Your task to perform on an android device: change text size in settings app Image 0: 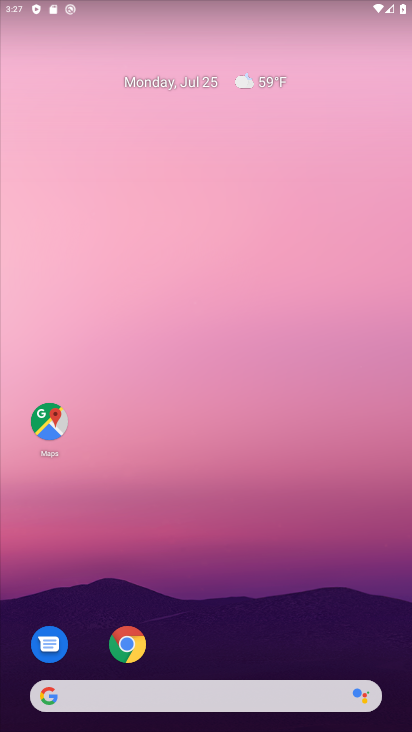
Step 0: drag from (188, 677) to (272, 98)
Your task to perform on an android device: change text size in settings app Image 1: 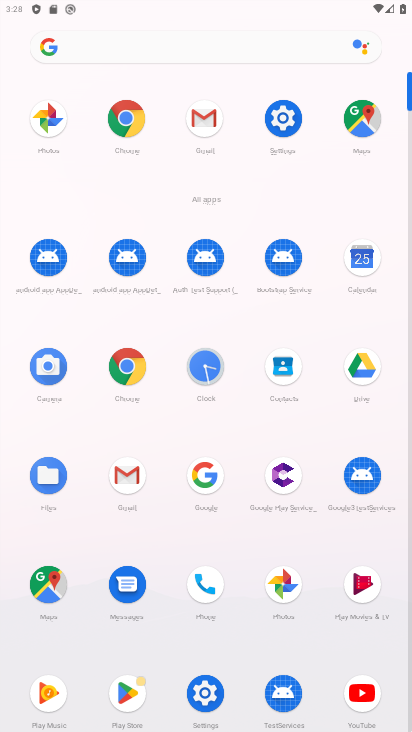
Step 1: click (207, 686)
Your task to perform on an android device: change text size in settings app Image 2: 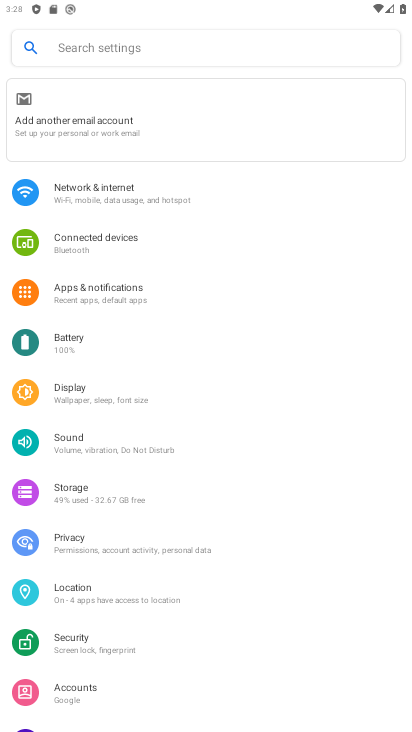
Step 2: drag from (83, 692) to (131, 282)
Your task to perform on an android device: change text size in settings app Image 3: 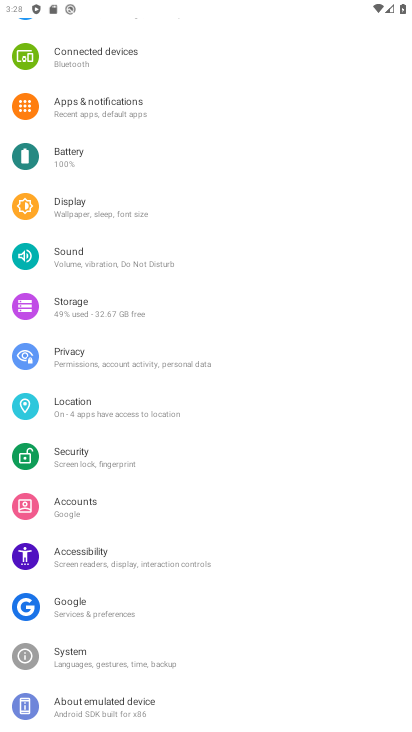
Step 3: click (107, 562)
Your task to perform on an android device: change text size in settings app Image 4: 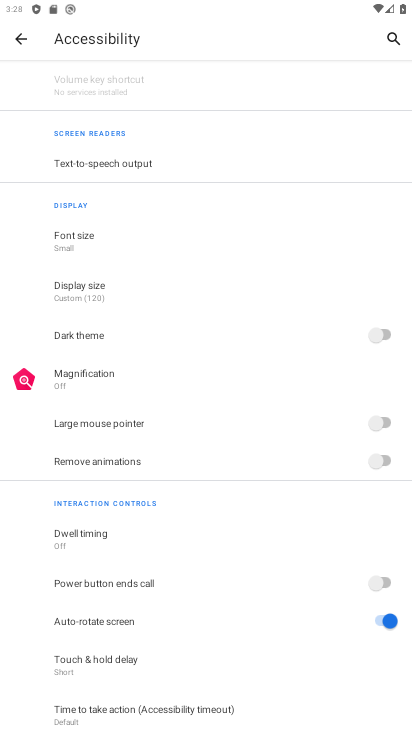
Step 4: click (87, 228)
Your task to perform on an android device: change text size in settings app Image 5: 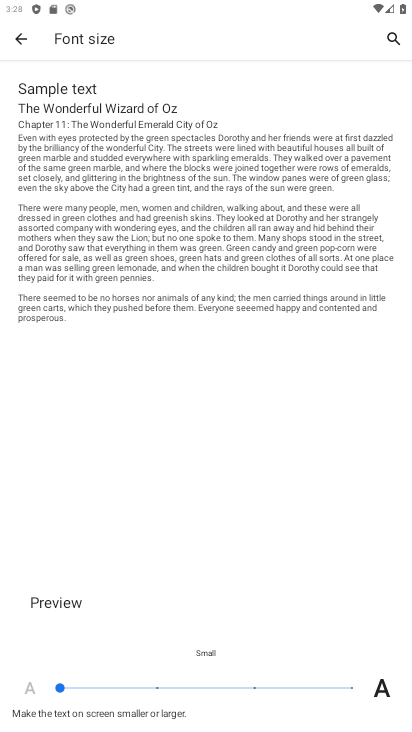
Step 5: click (153, 690)
Your task to perform on an android device: change text size in settings app Image 6: 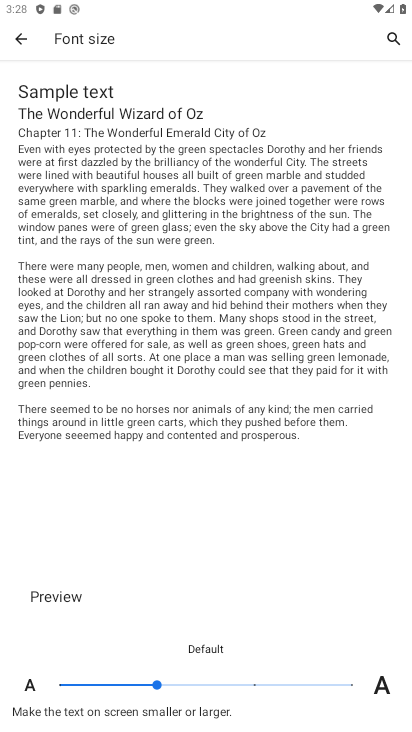
Step 6: task complete